Your task to perform on an android device: Go to eBay Image 0: 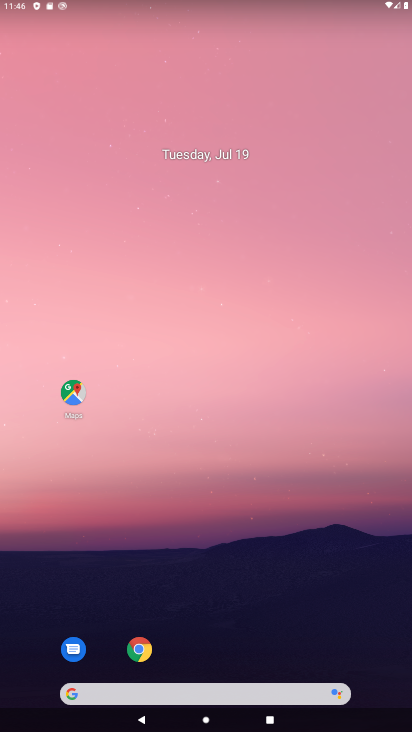
Step 0: click (224, 690)
Your task to perform on an android device: Go to eBay Image 1: 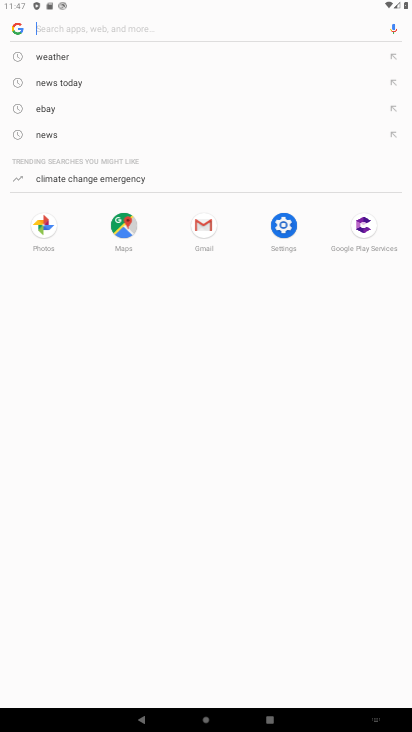
Step 1: click (50, 106)
Your task to perform on an android device: Go to eBay Image 2: 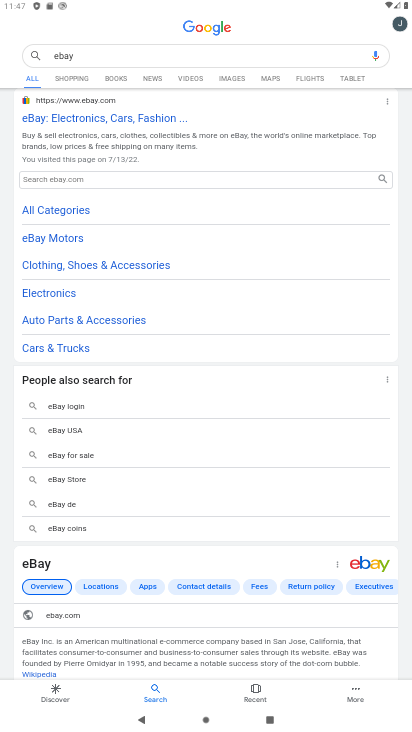
Step 2: click (82, 113)
Your task to perform on an android device: Go to eBay Image 3: 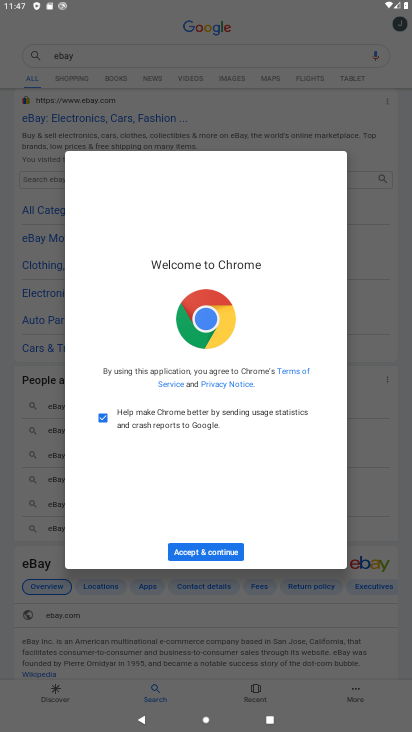
Step 3: click (220, 556)
Your task to perform on an android device: Go to eBay Image 4: 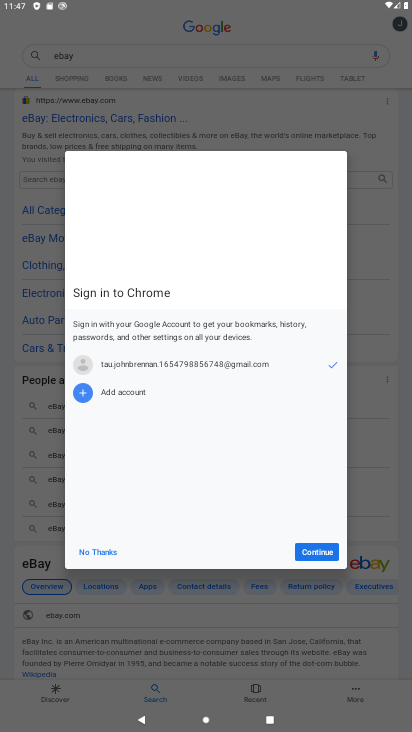
Step 4: click (320, 556)
Your task to perform on an android device: Go to eBay Image 5: 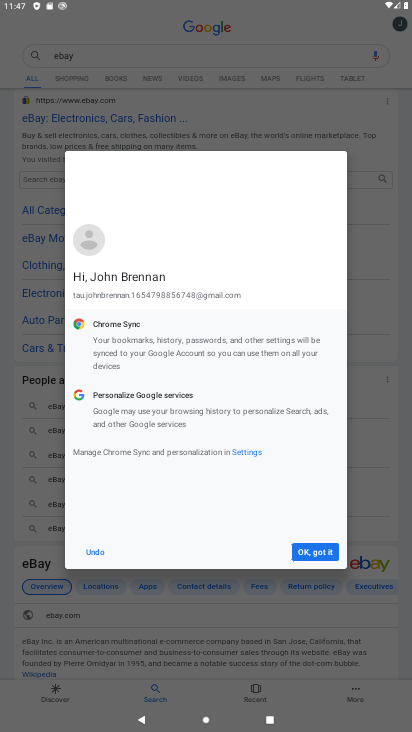
Step 5: click (317, 550)
Your task to perform on an android device: Go to eBay Image 6: 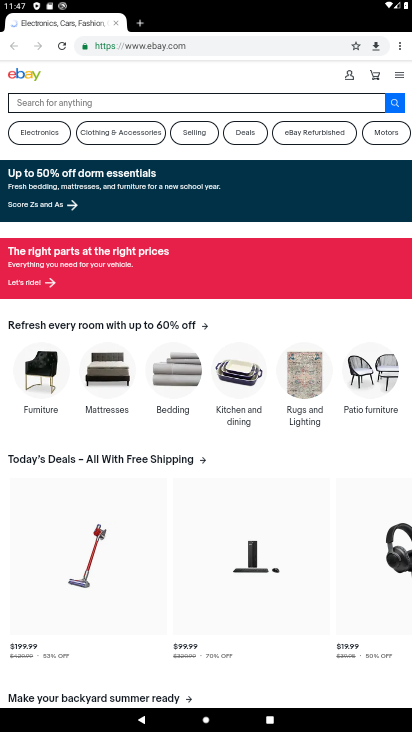
Step 6: task complete